Your task to perform on an android device: Open ESPN.com Image 0: 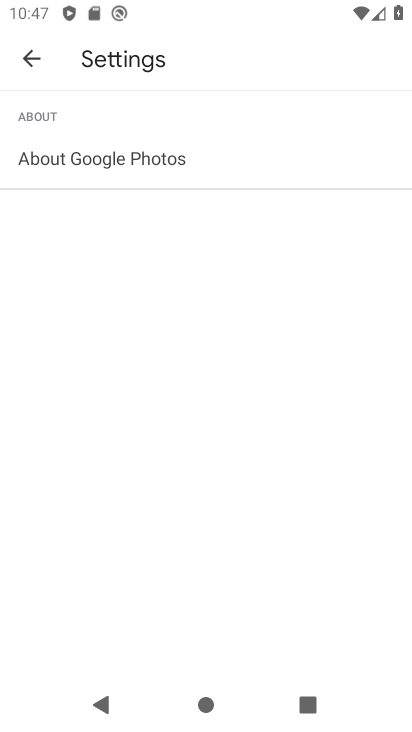
Step 0: press home button
Your task to perform on an android device: Open ESPN.com Image 1: 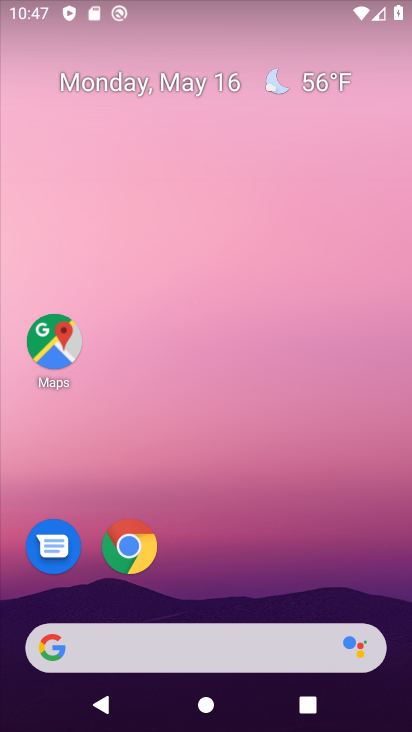
Step 1: click (110, 563)
Your task to perform on an android device: Open ESPN.com Image 2: 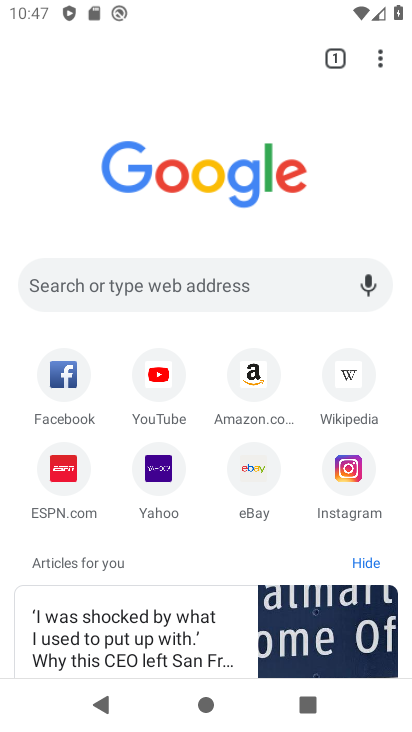
Step 2: click (126, 286)
Your task to perform on an android device: Open ESPN.com Image 3: 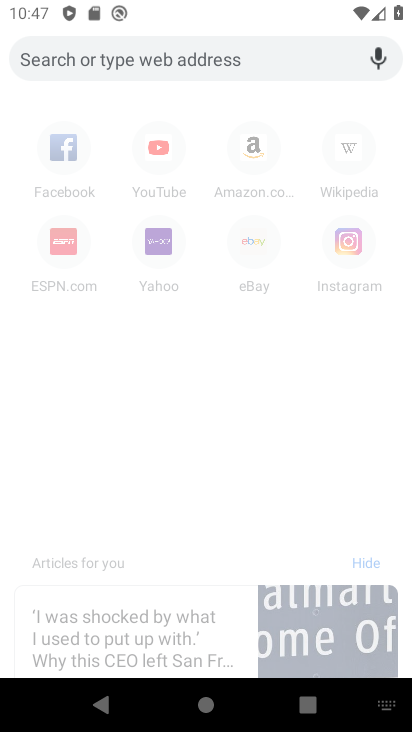
Step 3: click (81, 252)
Your task to perform on an android device: Open ESPN.com Image 4: 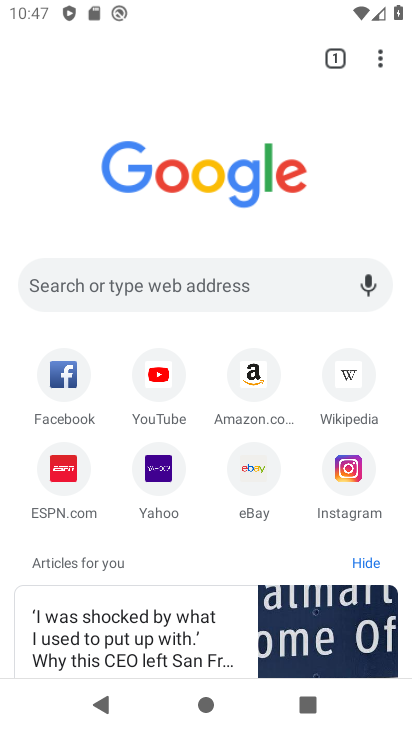
Step 4: click (44, 476)
Your task to perform on an android device: Open ESPN.com Image 5: 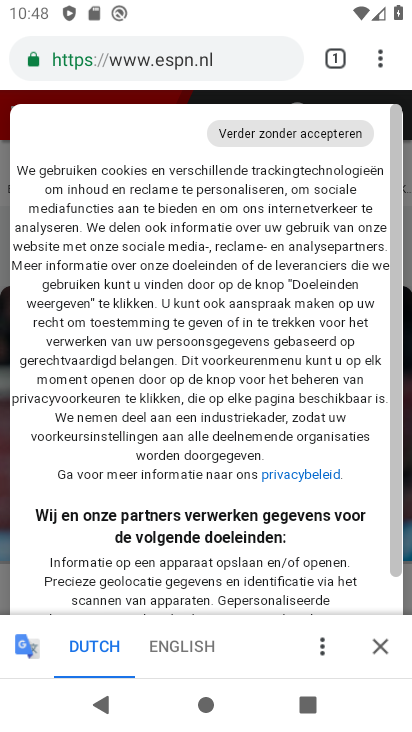
Step 5: task complete